Your task to perform on an android device: change the clock display to show seconds Image 0: 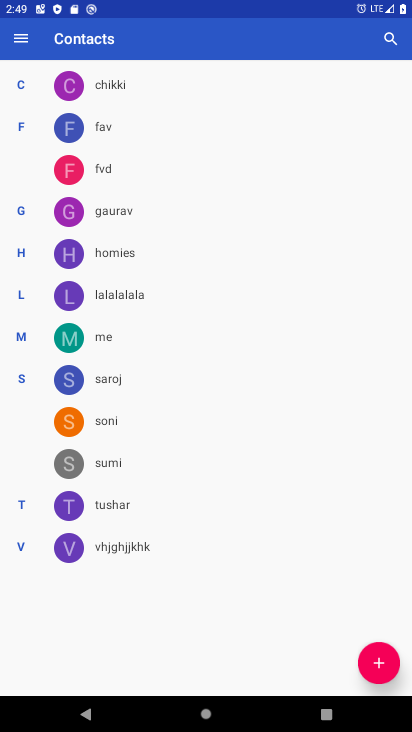
Step 0: press home button
Your task to perform on an android device: change the clock display to show seconds Image 1: 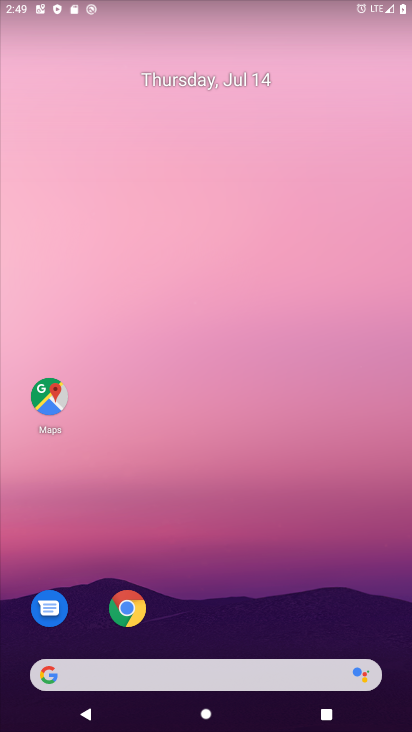
Step 1: drag from (242, 715) to (236, 109)
Your task to perform on an android device: change the clock display to show seconds Image 2: 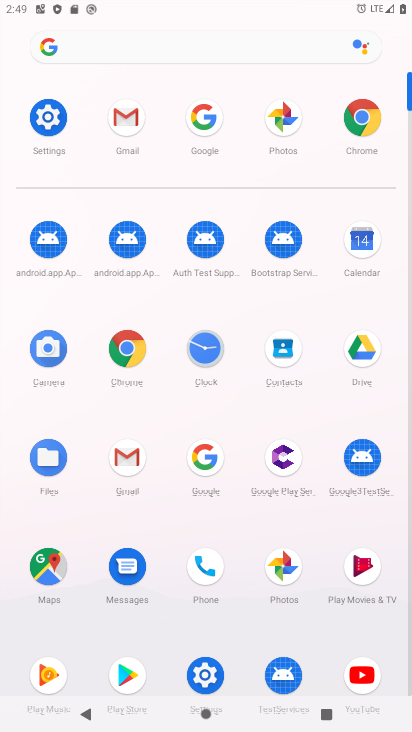
Step 2: click (209, 348)
Your task to perform on an android device: change the clock display to show seconds Image 3: 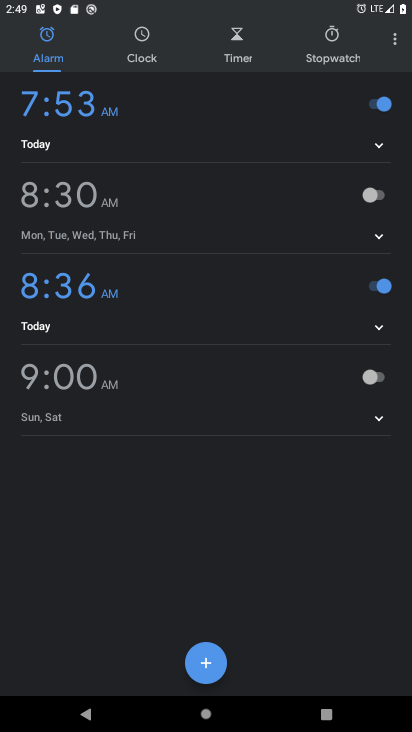
Step 3: click (394, 40)
Your task to perform on an android device: change the clock display to show seconds Image 4: 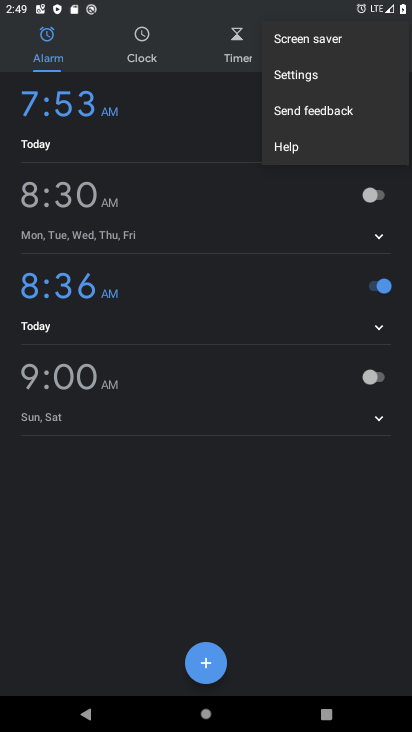
Step 4: click (296, 75)
Your task to perform on an android device: change the clock display to show seconds Image 5: 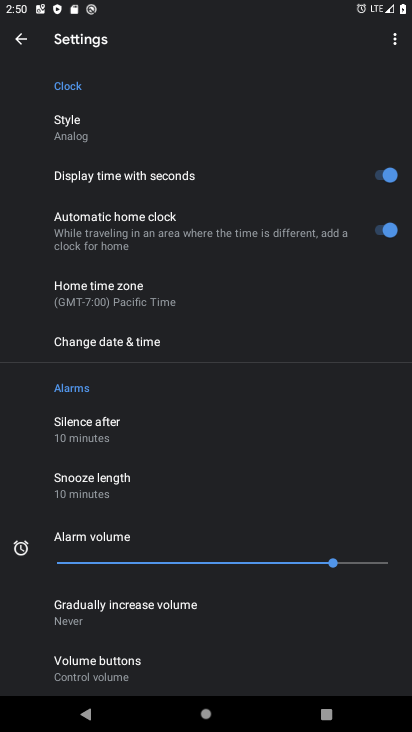
Step 5: task complete